Your task to perform on an android device: change your default location settings in chrome Image 0: 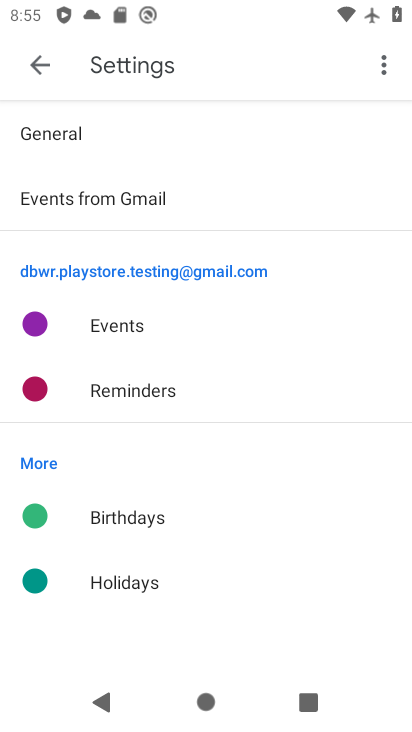
Step 0: press home button
Your task to perform on an android device: change your default location settings in chrome Image 1: 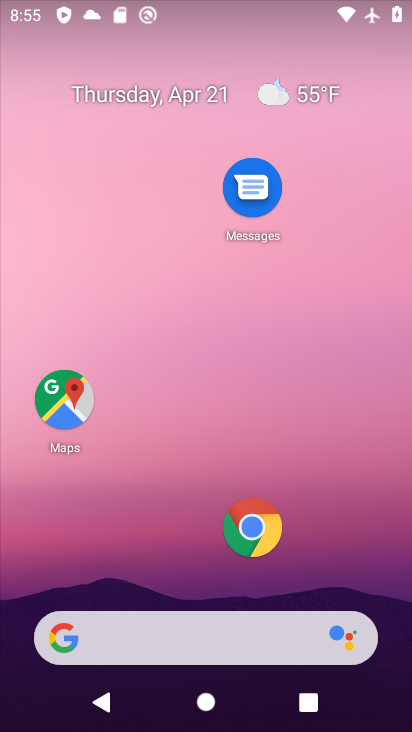
Step 1: drag from (179, 645) to (365, 2)
Your task to perform on an android device: change your default location settings in chrome Image 2: 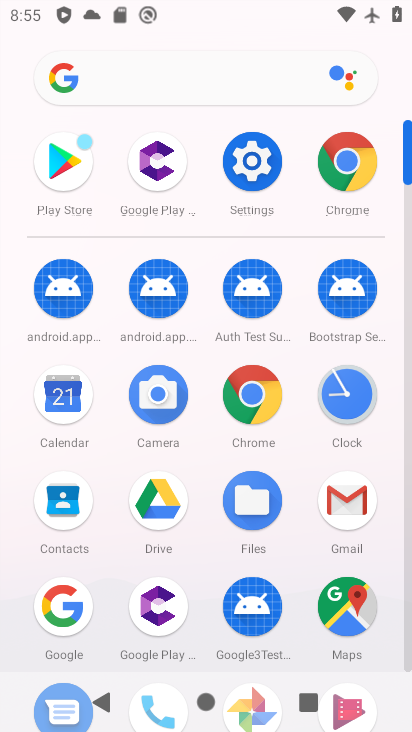
Step 2: click (252, 389)
Your task to perform on an android device: change your default location settings in chrome Image 3: 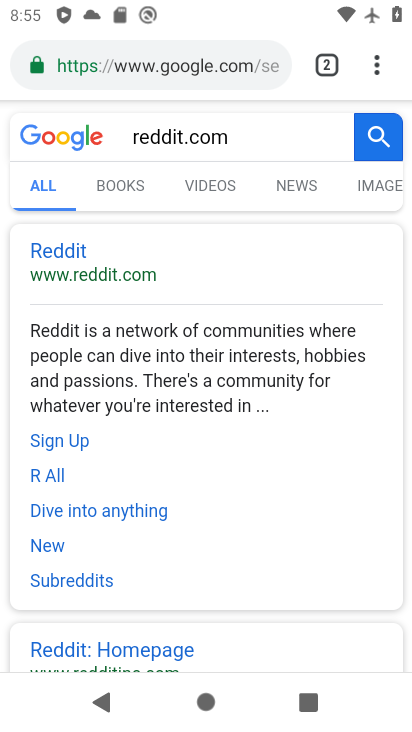
Step 3: click (367, 76)
Your task to perform on an android device: change your default location settings in chrome Image 4: 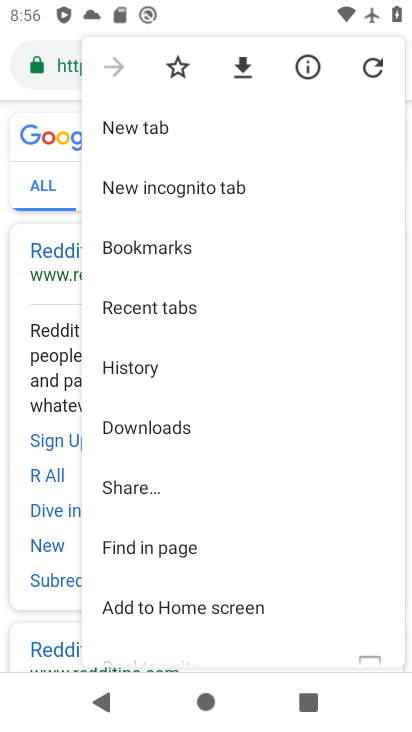
Step 4: drag from (228, 542) to (317, 258)
Your task to perform on an android device: change your default location settings in chrome Image 5: 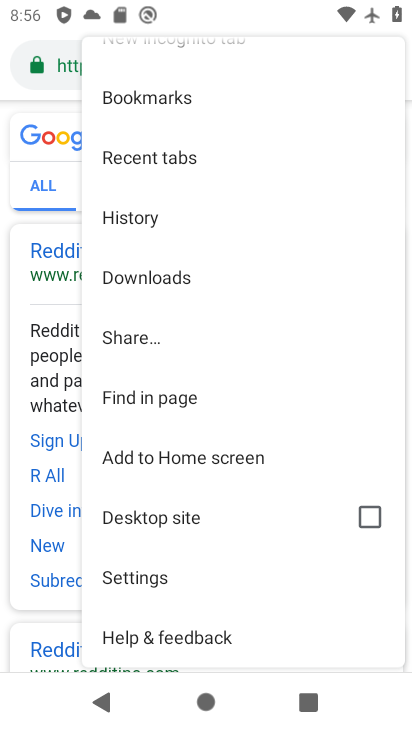
Step 5: click (137, 578)
Your task to perform on an android device: change your default location settings in chrome Image 6: 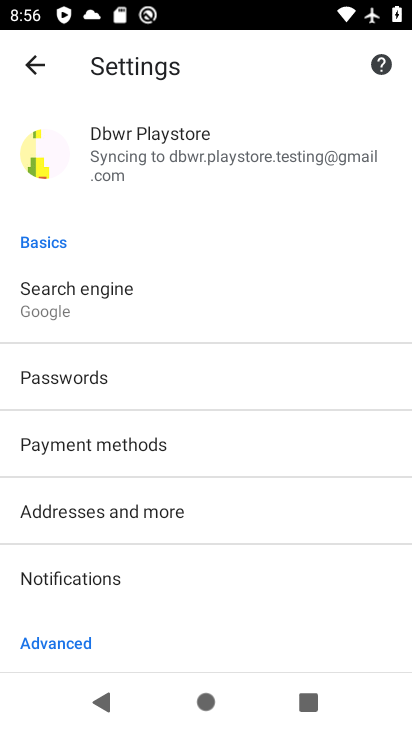
Step 6: drag from (173, 564) to (276, 216)
Your task to perform on an android device: change your default location settings in chrome Image 7: 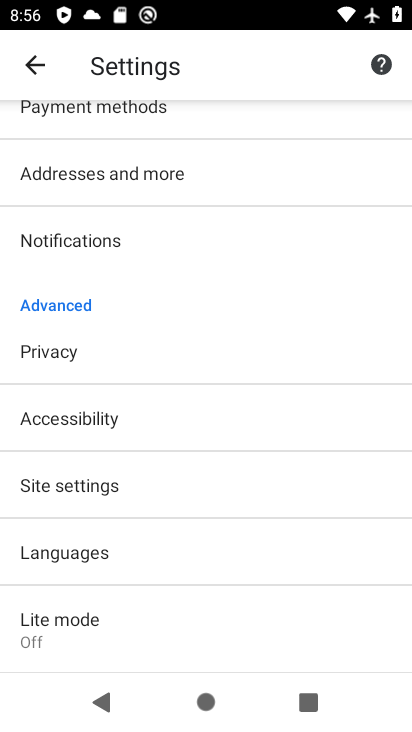
Step 7: drag from (263, 138) to (223, 366)
Your task to perform on an android device: change your default location settings in chrome Image 8: 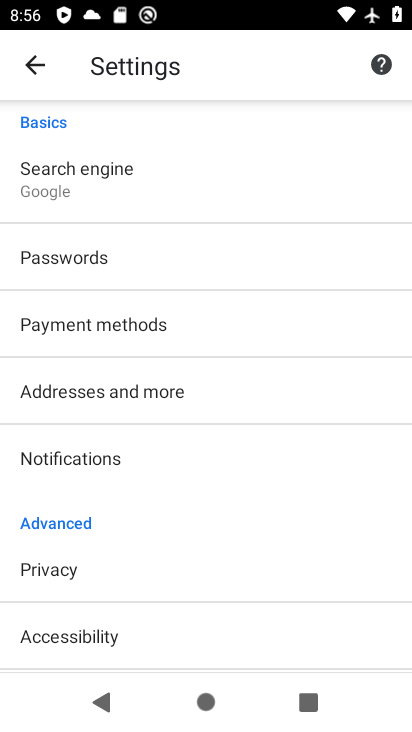
Step 8: drag from (160, 498) to (303, 179)
Your task to perform on an android device: change your default location settings in chrome Image 9: 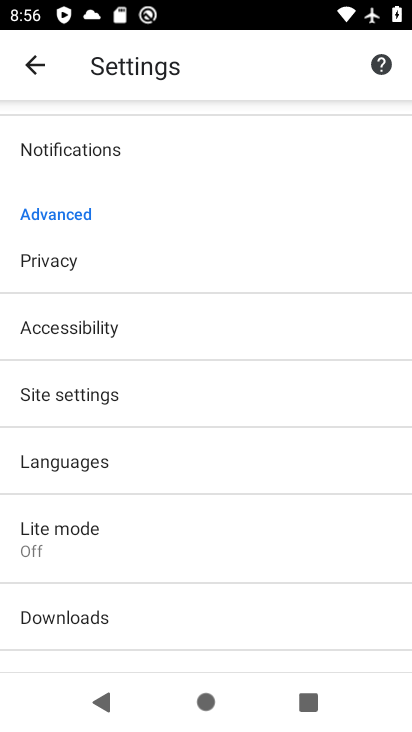
Step 9: click (58, 398)
Your task to perform on an android device: change your default location settings in chrome Image 10: 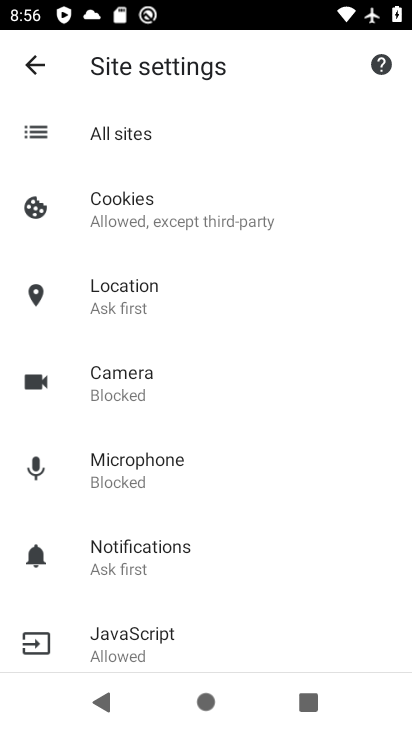
Step 10: click (164, 308)
Your task to perform on an android device: change your default location settings in chrome Image 11: 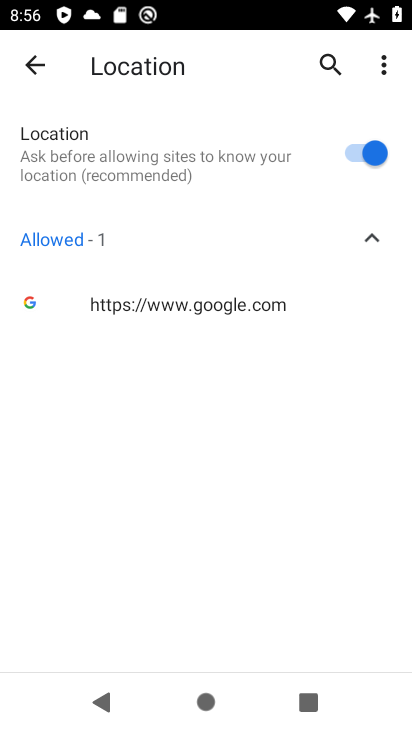
Step 11: click (357, 153)
Your task to perform on an android device: change your default location settings in chrome Image 12: 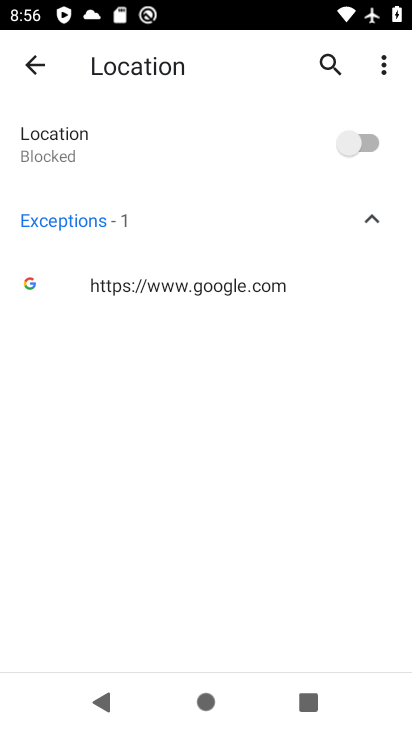
Step 12: task complete